Your task to perform on an android device: Open Chrome and go to the settings page Image 0: 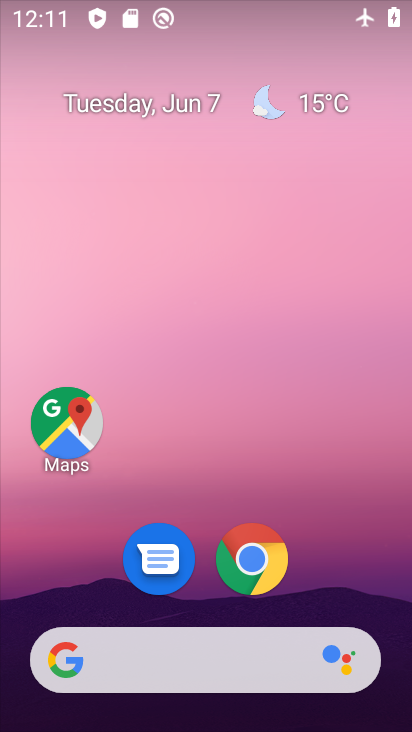
Step 0: click (252, 561)
Your task to perform on an android device: Open Chrome and go to the settings page Image 1: 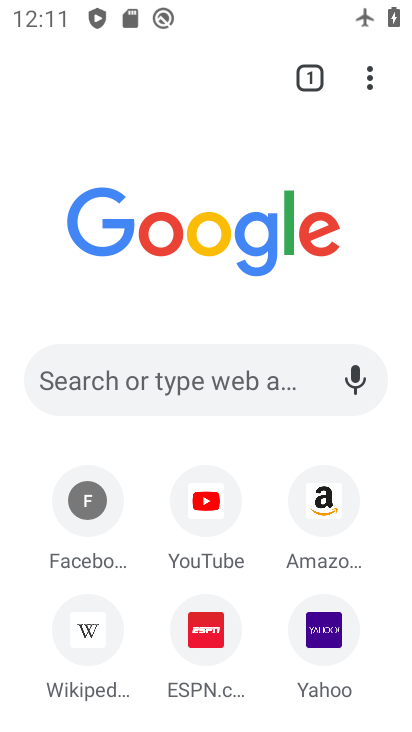
Step 1: click (368, 85)
Your task to perform on an android device: Open Chrome and go to the settings page Image 2: 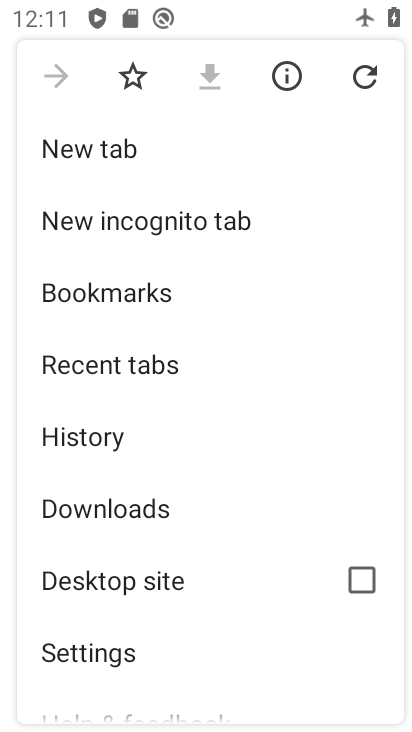
Step 2: drag from (191, 683) to (217, 442)
Your task to perform on an android device: Open Chrome and go to the settings page Image 3: 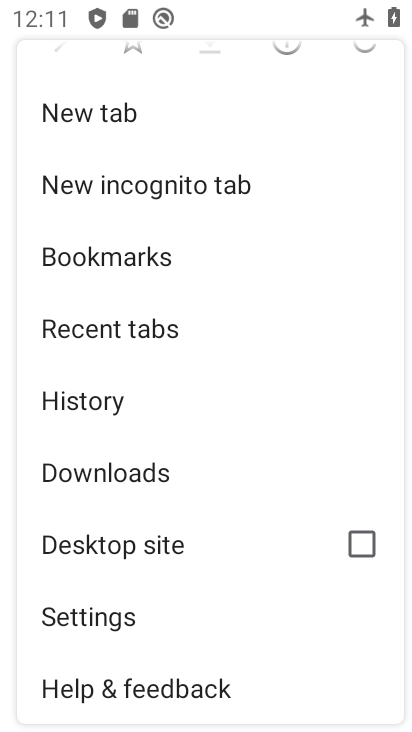
Step 3: click (107, 617)
Your task to perform on an android device: Open Chrome and go to the settings page Image 4: 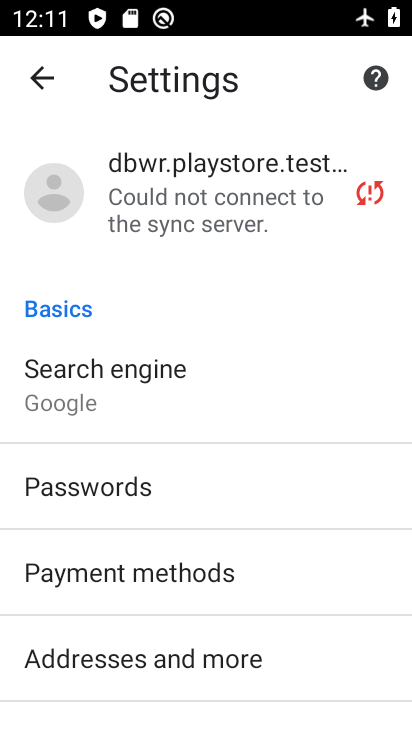
Step 4: task complete